Your task to perform on an android device: Open Google Maps and go to "Timeline" Image 0: 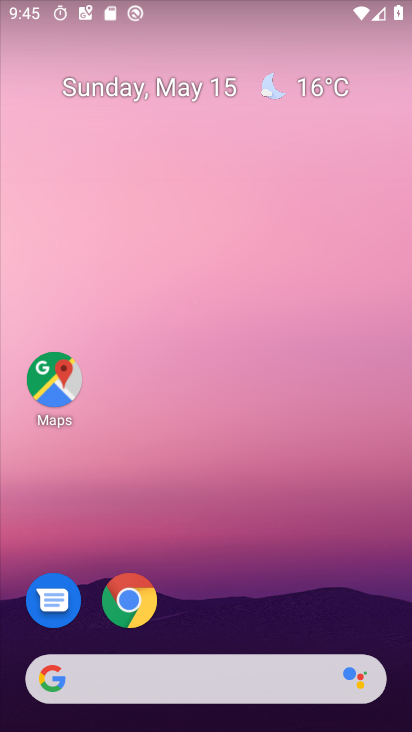
Step 0: drag from (188, 645) to (119, 165)
Your task to perform on an android device: Open Google Maps and go to "Timeline" Image 1: 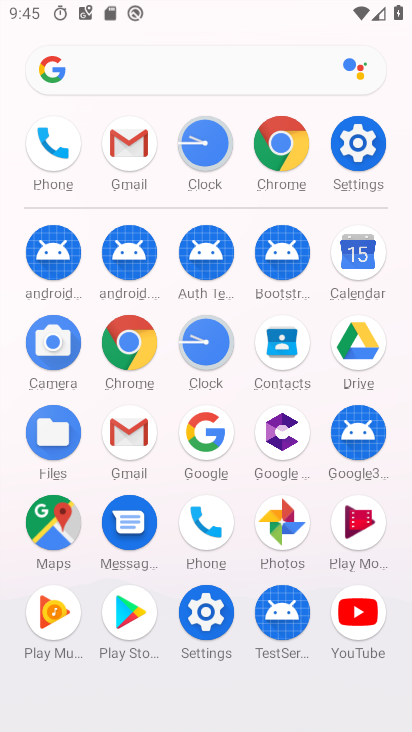
Step 1: click (57, 534)
Your task to perform on an android device: Open Google Maps and go to "Timeline" Image 2: 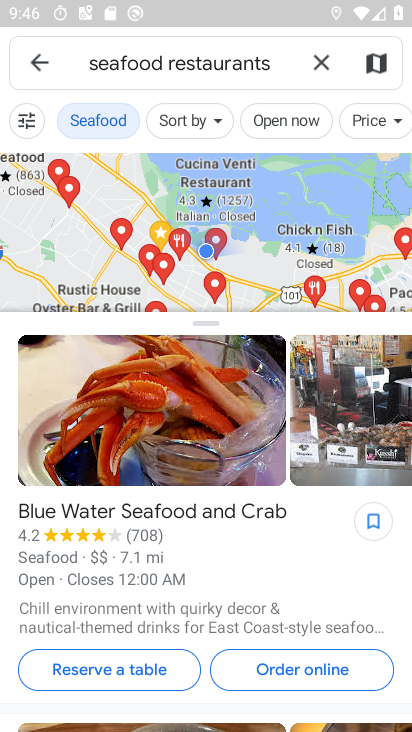
Step 2: click (44, 67)
Your task to perform on an android device: Open Google Maps and go to "Timeline" Image 3: 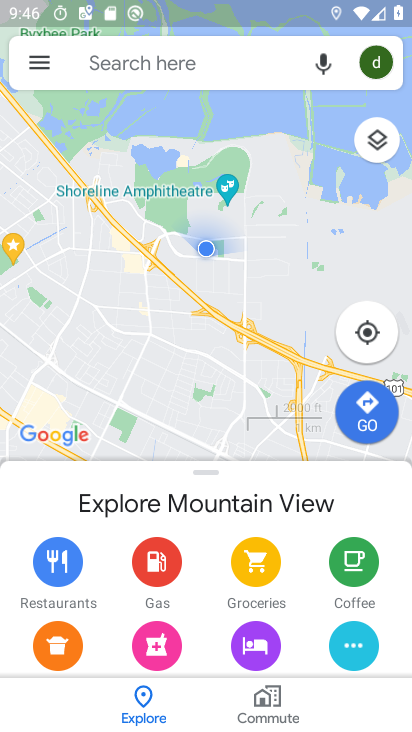
Step 3: click (43, 68)
Your task to perform on an android device: Open Google Maps and go to "Timeline" Image 4: 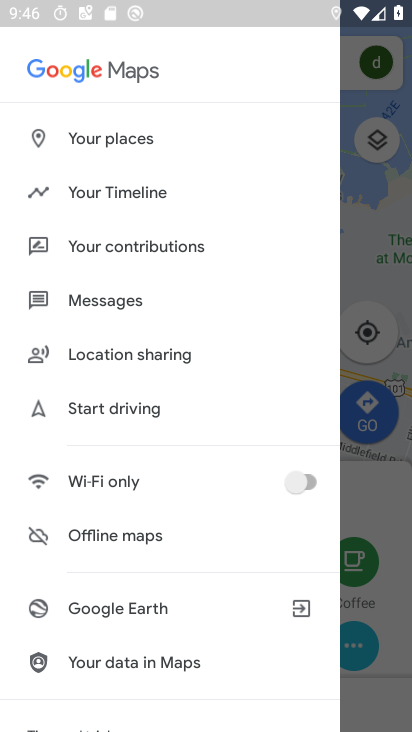
Step 4: click (119, 203)
Your task to perform on an android device: Open Google Maps and go to "Timeline" Image 5: 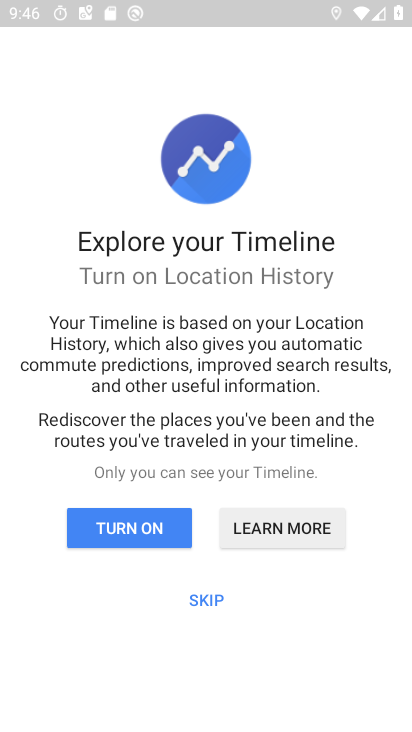
Step 5: click (212, 608)
Your task to perform on an android device: Open Google Maps and go to "Timeline" Image 6: 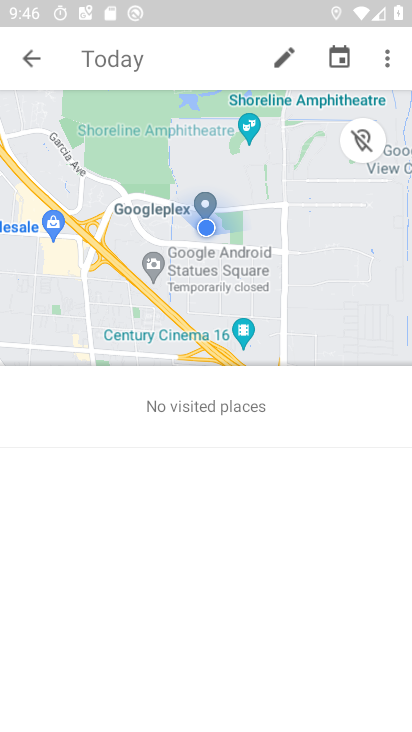
Step 6: task complete